Your task to perform on an android device: Do I have any events tomorrow? Image 0: 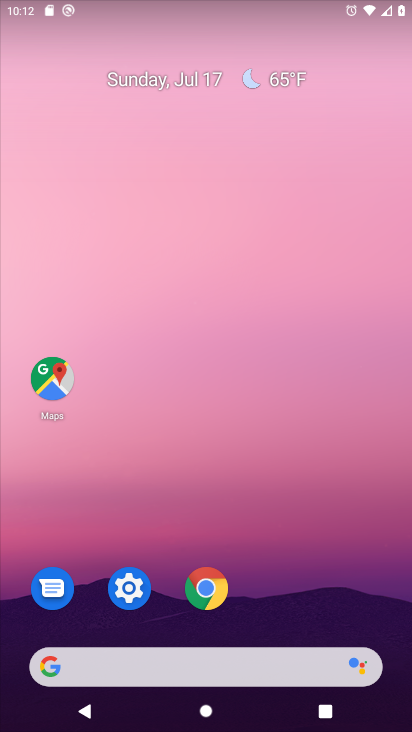
Step 0: drag from (323, 676) to (250, 357)
Your task to perform on an android device: Do I have any events tomorrow? Image 1: 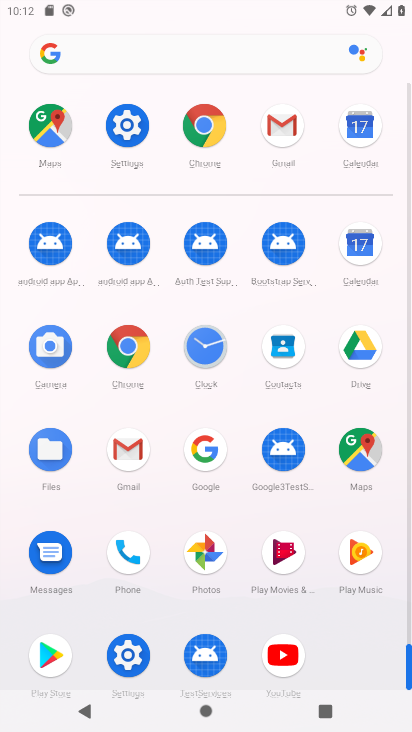
Step 1: click (367, 253)
Your task to perform on an android device: Do I have any events tomorrow? Image 2: 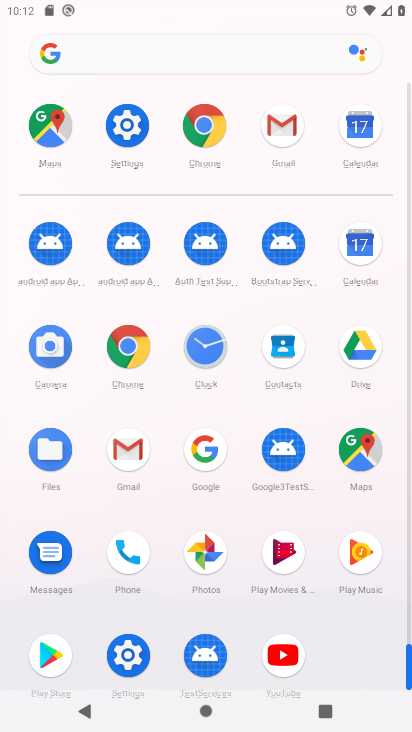
Step 2: click (367, 252)
Your task to perform on an android device: Do I have any events tomorrow? Image 3: 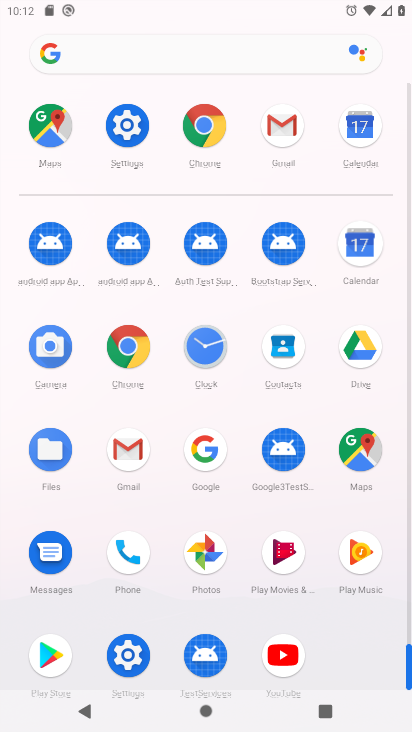
Step 3: click (366, 252)
Your task to perform on an android device: Do I have any events tomorrow? Image 4: 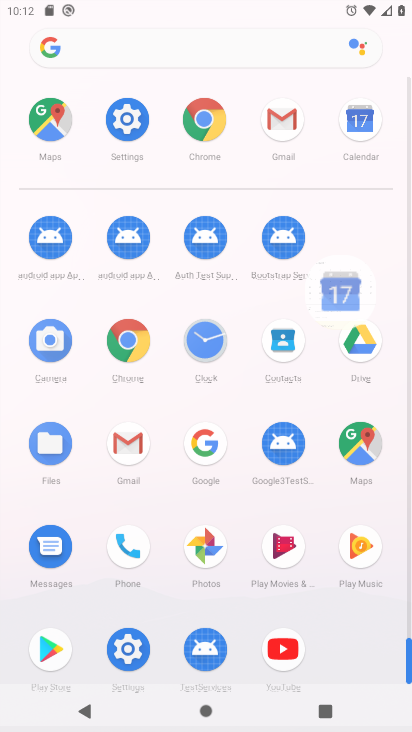
Step 4: click (367, 251)
Your task to perform on an android device: Do I have any events tomorrow? Image 5: 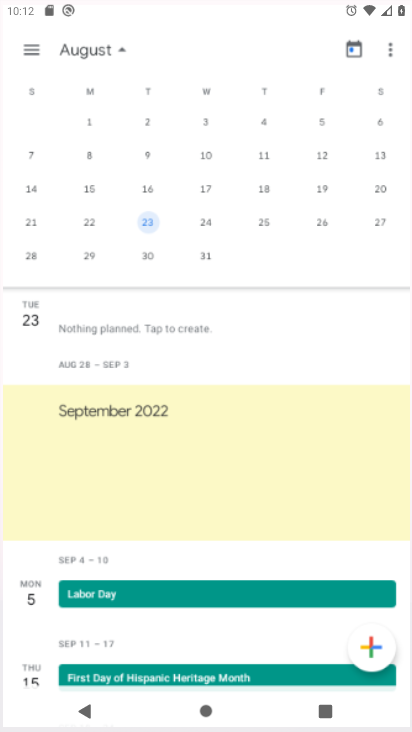
Step 5: click (367, 251)
Your task to perform on an android device: Do I have any events tomorrow? Image 6: 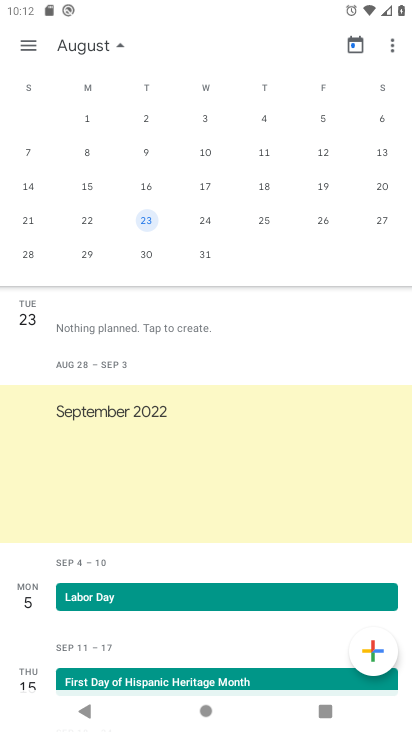
Step 6: drag from (100, 213) to (408, 171)
Your task to perform on an android device: Do I have any events tomorrow? Image 7: 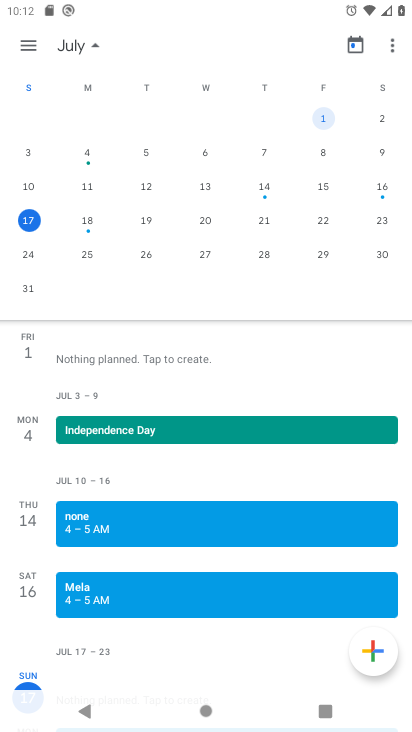
Step 7: click (146, 213)
Your task to perform on an android device: Do I have any events tomorrow? Image 8: 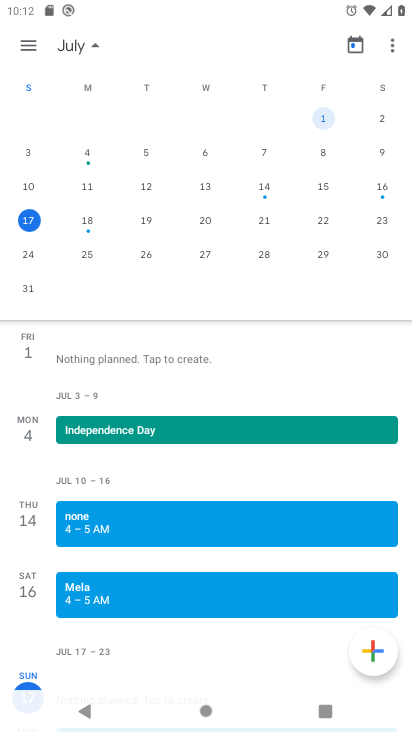
Step 8: click (146, 213)
Your task to perform on an android device: Do I have any events tomorrow? Image 9: 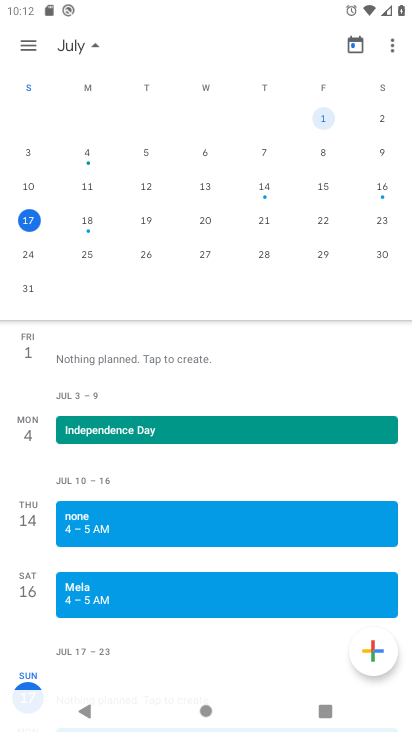
Step 9: click (146, 213)
Your task to perform on an android device: Do I have any events tomorrow? Image 10: 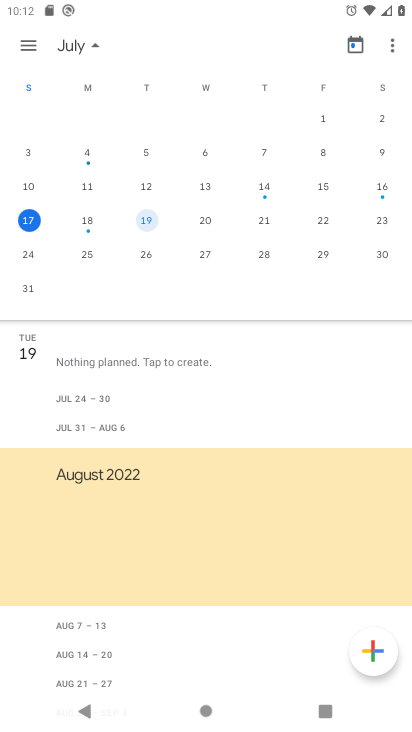
Step 10: click (146, 217)
Your task to perform on an android device: Do I have any events tomorrow? Image 11: 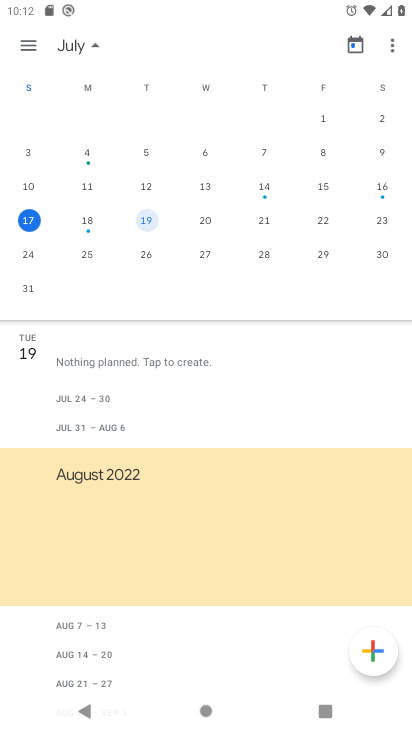
Step 11: click (151, 226)
Your task to perform on an android device: Do I have any events tomorrow? Image 12: 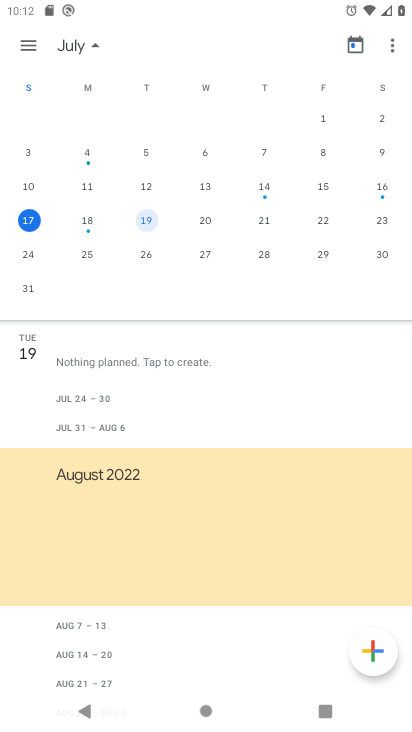
Step 12: task complete